Your task to perform on an android device: read, delete, or share a saved page in the chrome app Image 0: 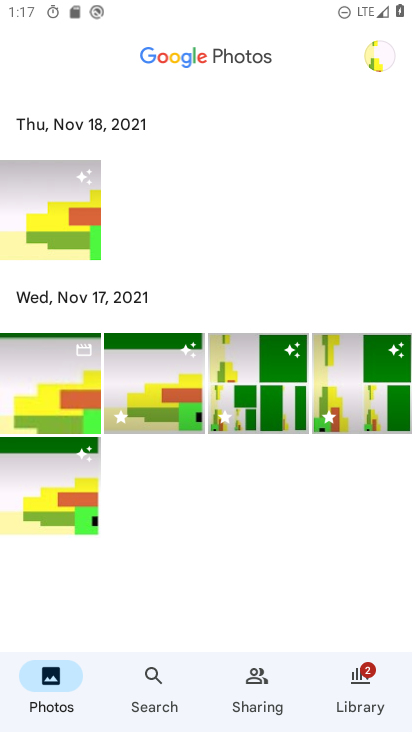
Step 0: press home button
Your task to perform on an android device: read, delete, or share a saved page in the chrome app Image 1: 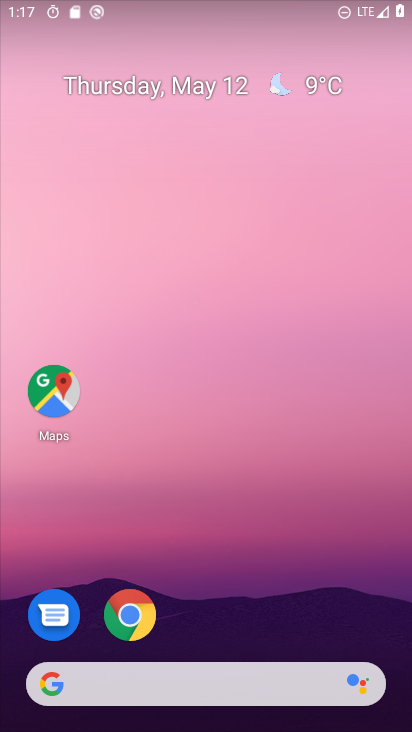
Step 1: click (132, 613)
Your task to perform on an android device: read, delete, or share a saved page in the chrome app Image 2: 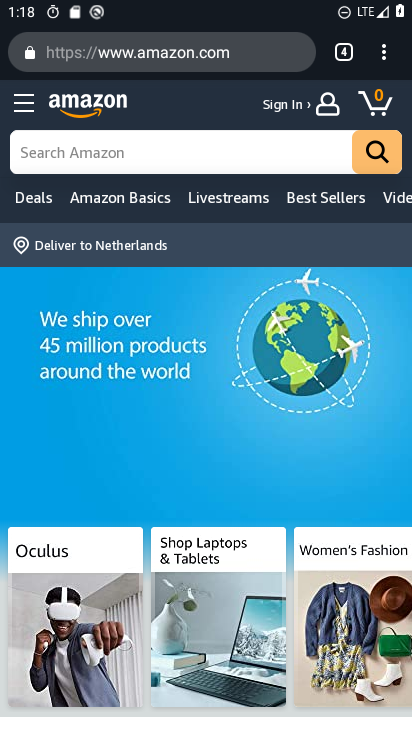
Step 2: task complete